Your task to perform on an android device: Open Wikipedia Image 0: 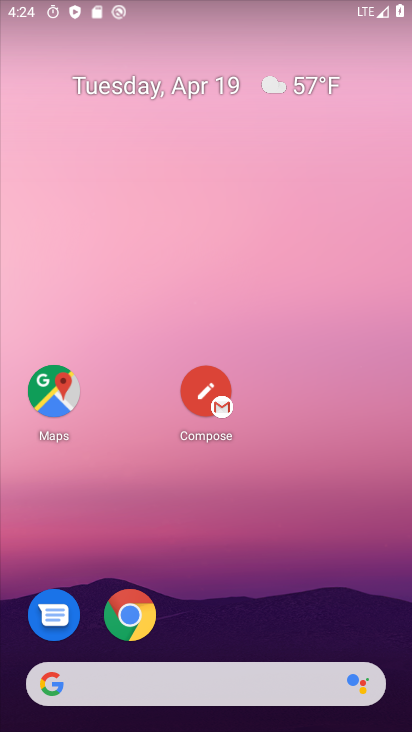
Step 0: drag from (278, 630) to (190, 77)
Your task to perform on an android device: Open Wikipedia Image 1: 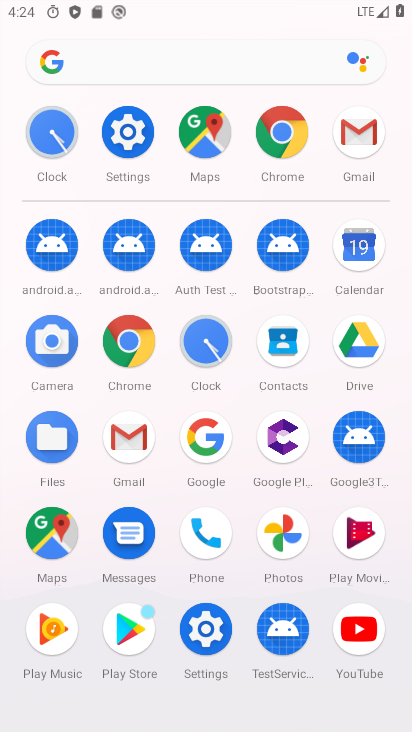
Step 1: click (121, 351)
Your task to perform on an android device: Open Wikipedia Image 2: 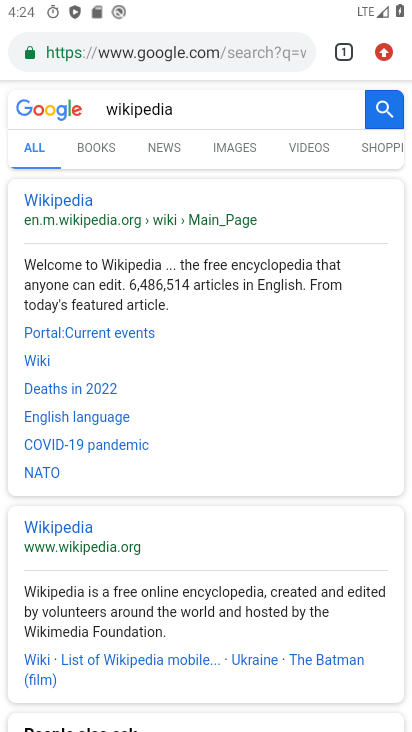
Step 2: task complete